Your task to perform on an android device: Is it going to rain this weekend? Image 0: 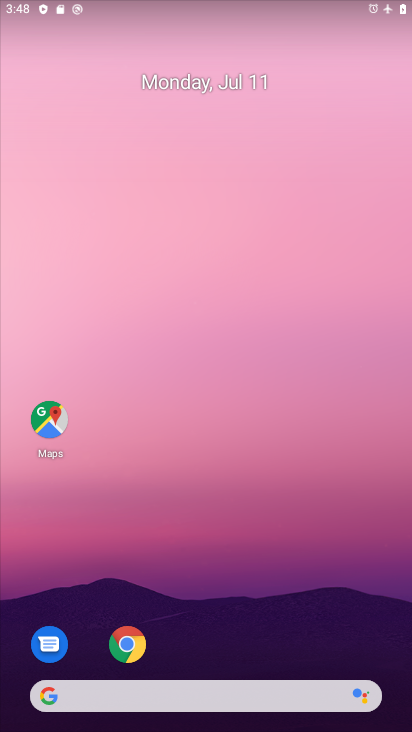
Step 0: drag from (268, 659) to (316, 23)
Your task to perform on an android device: Is it going to rain this weekend? Image 1: 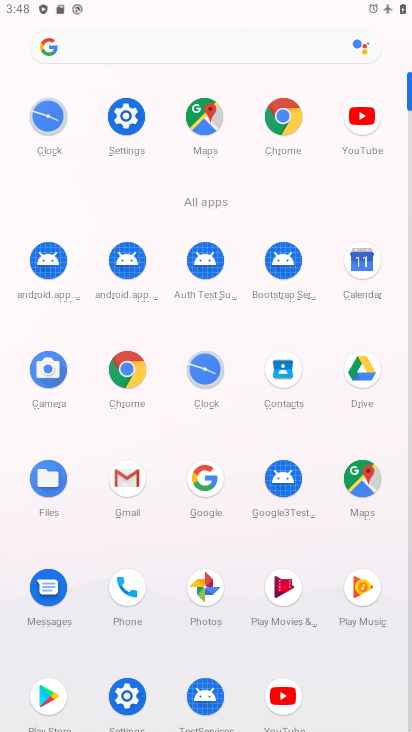
Step 1: click (272, 127)
Your task to perform on an android device: Is it going to rain this weekend? Image 2: 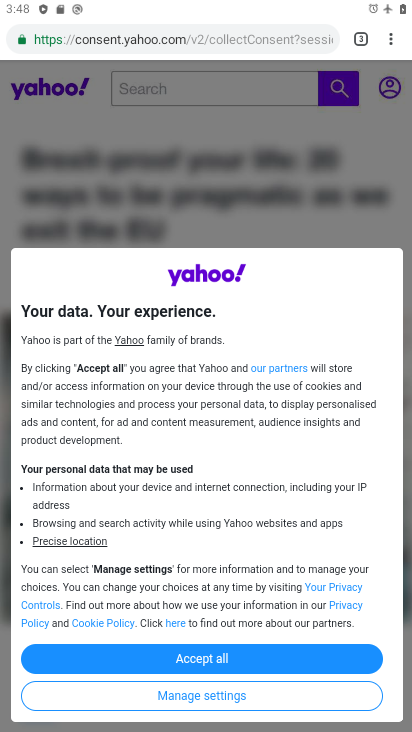
Step 2: click (199, 661)
Your task to perform on an android device: Is it going to rain this weekend? Image 3: 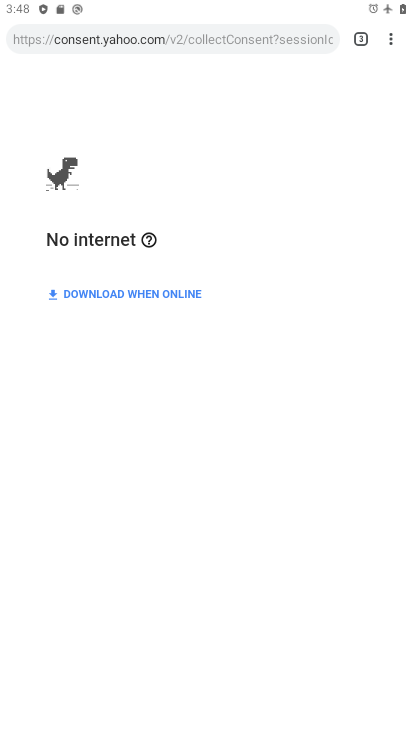
Step 3: click (236, 42)
Your task to perform on an android device: Is it going to rain this weekend? Image 4: 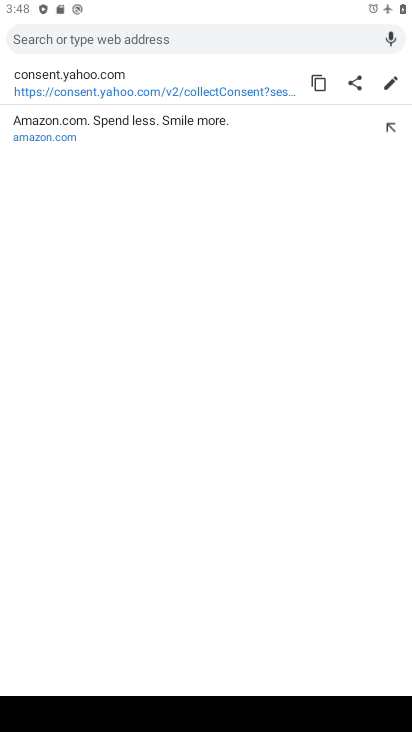
Step 4: type "wheather"
Your task to perform on an android device: Is it going to rain this weekend? Image 5: 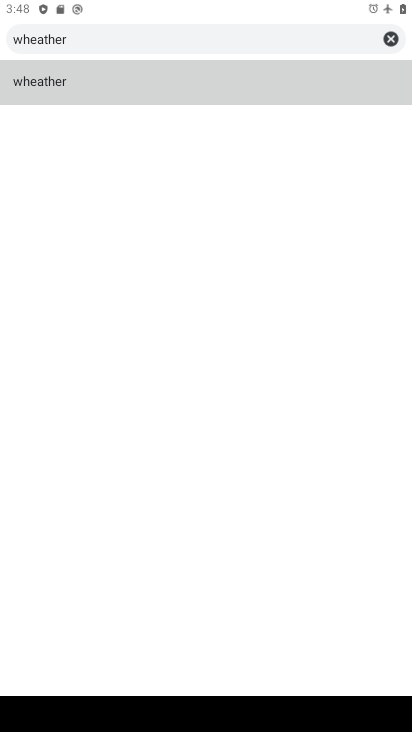
Step 5: click (77, 99)
Your task to perform on an android device: Is it going to rain this weekend? Image 6: 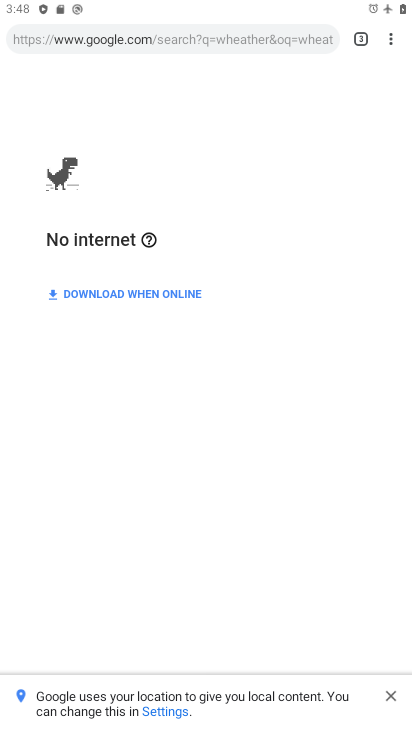
Step 6: task complete